Your task to perform on an android device: change notification settings in the gmail app Image 0: 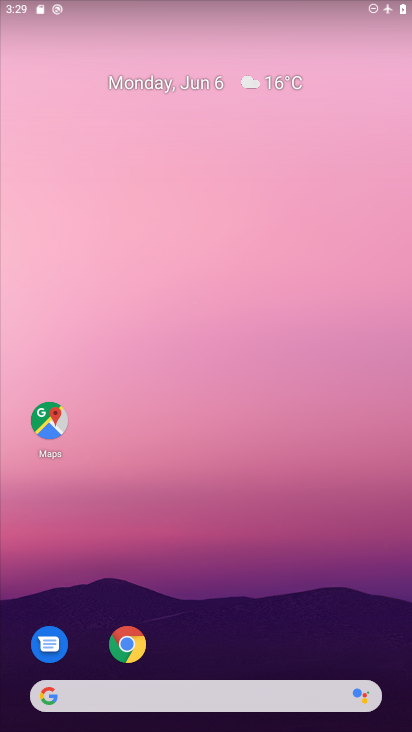
Step 0: drag from (294, 602) to (213, 56)
Your task to perform on an android device: change notification settings in the gmail app Image 1: 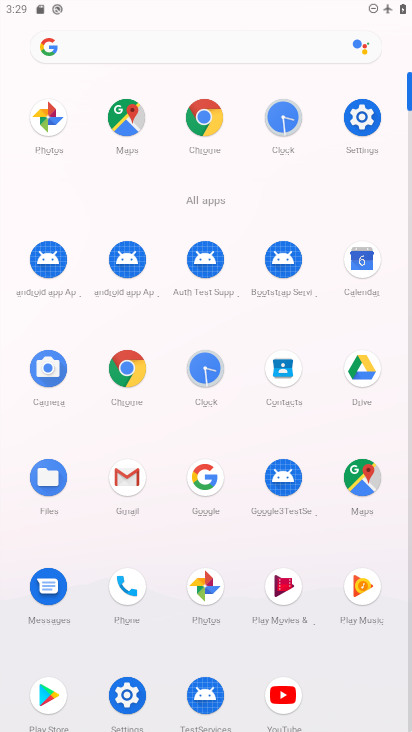
Step 1: click (129, 476)
Your task to perform on an android device: change notification settings in the gmail app Image 2: 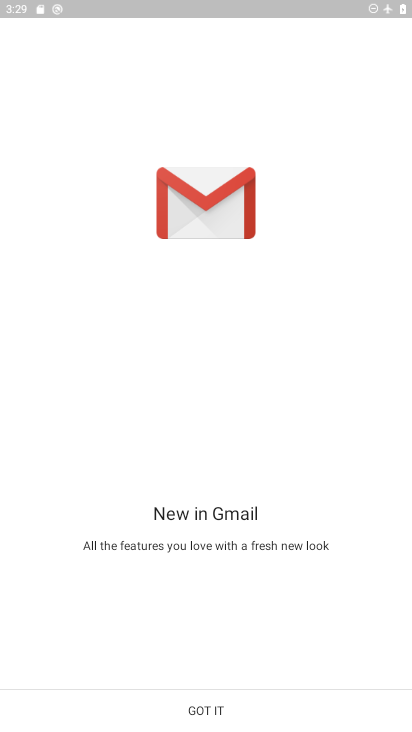
Step 2: click (203, 708)
Your task to perform on an android device: change notification settings in the gmail app Image 3: 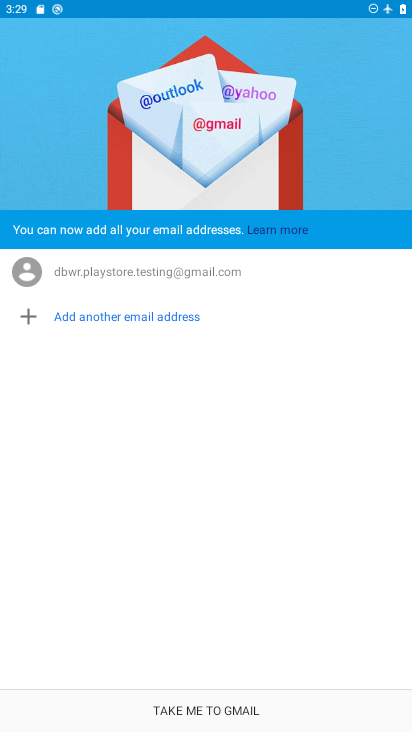
Step 3: click (203, 708)
Your task to perform on an android device: change notification settings in the gmail app Image 4: 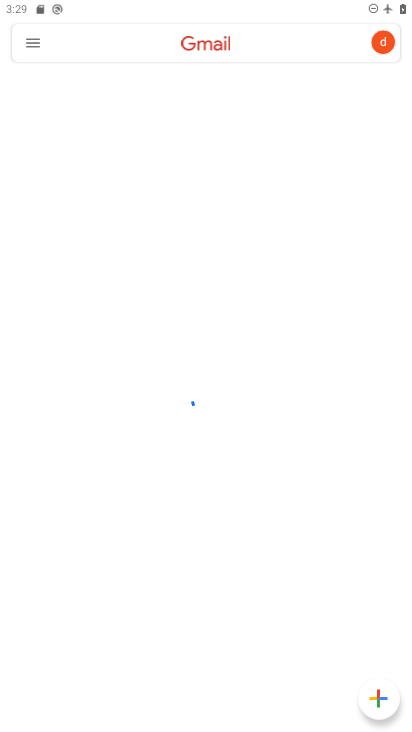
Step 4: click (32, 42)
Your task to perform on an android device: change notification settings in the gmail app Image 5: 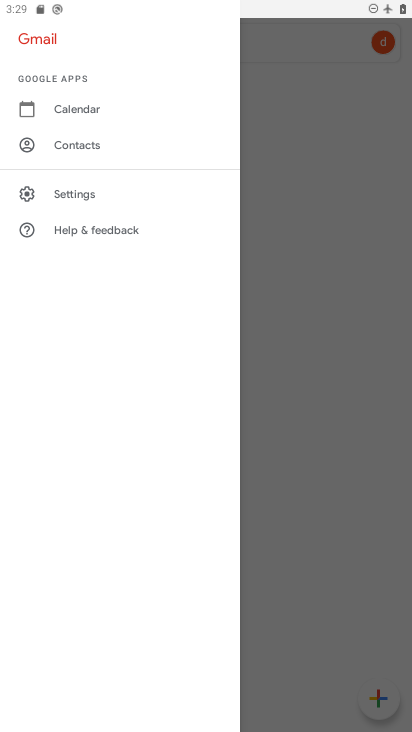
Step 5: click (83, 201)
Your task to perform on an android device: change notification settings in the gmail app Image 6: 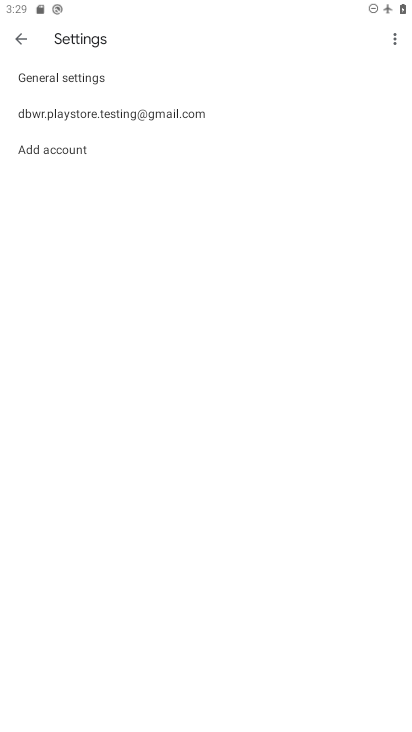
Step 6: click (98, 113)
Your task to perform on an android device: change notification settings in the gmail app Image 7: 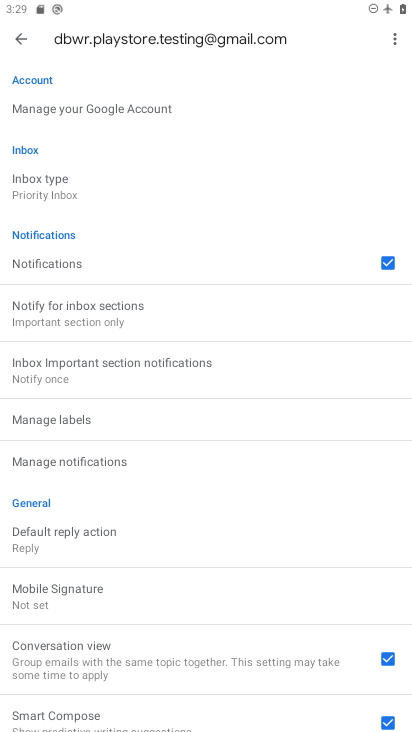
Step 7: click (61, 466)
Your task to perform on an android device: change notification settings in the gmail app Image 8: 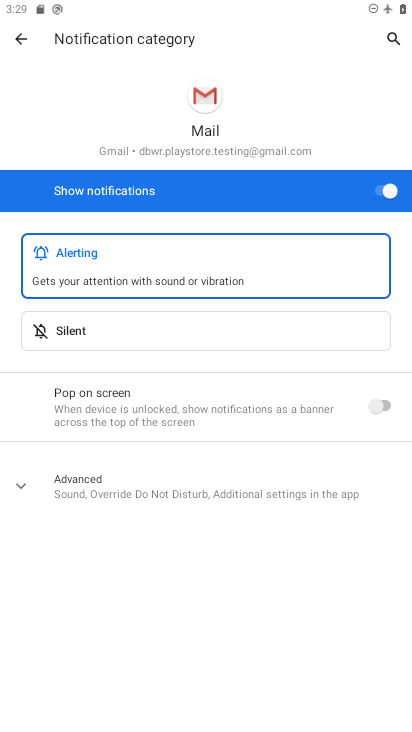
Step 8: click (383, 195)
Your task to perform on an android device: change notification settings in the gmail app Image 9: 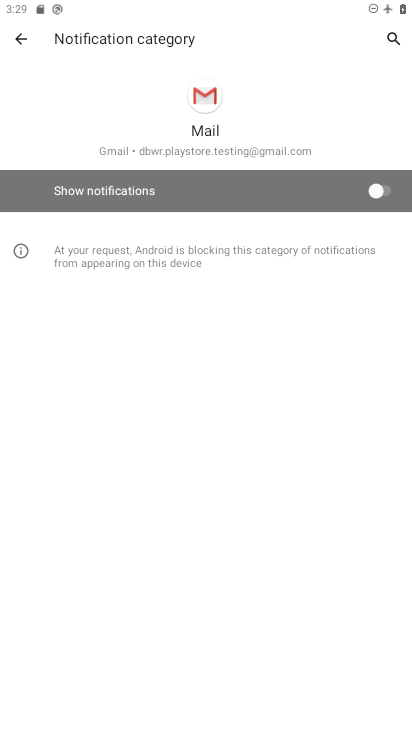
Step 9: task complete